Your task to perform on an android device: toggle priority inbox in the gmail app Image 0: 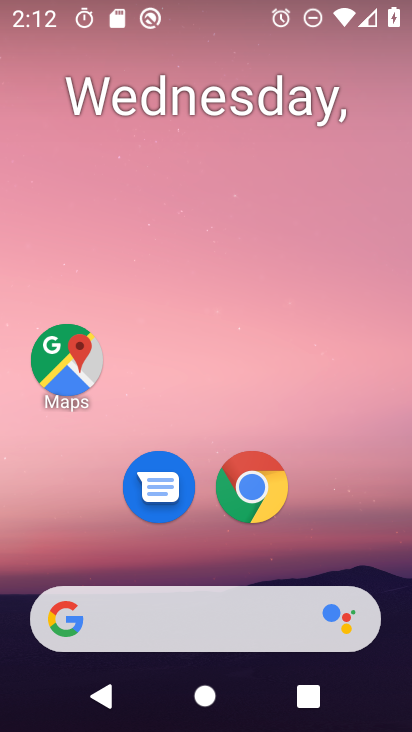
Step 0: drag from (182, 473) to (264, 53)
Your task to perform on an android device: toggle priority inbox in the gmail app Image 1: 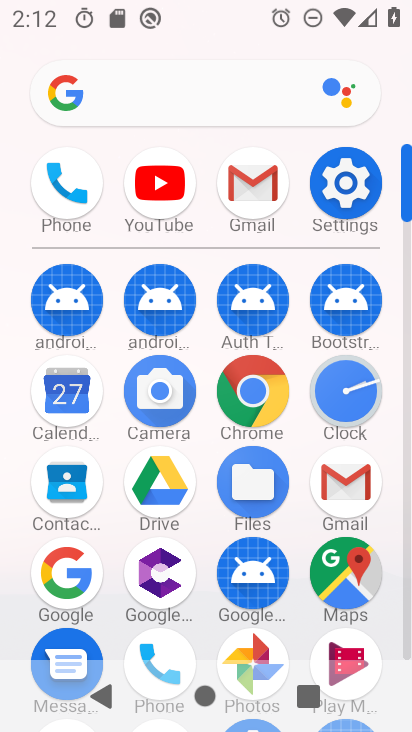
Step 1: click (268, 185)
Your task to perform on an android device: toggle priority inbox in the gmail app Image 2: 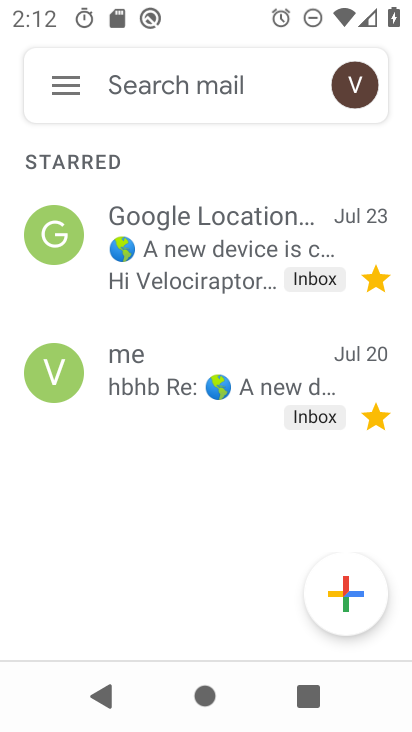
Step 2: click (65, 74)
Your task to perform on an android device: toggle priority inbox in the gmail app Image 3: 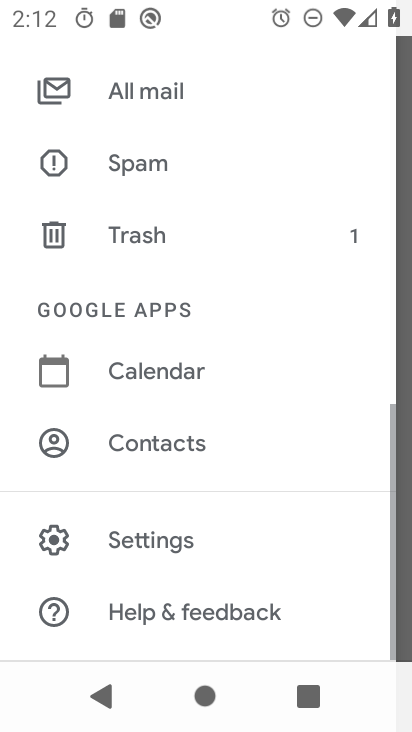
Step 3: click (133, 538)
Your task to perform on an android device: toggle priority inbox in the gmail app Image 4: 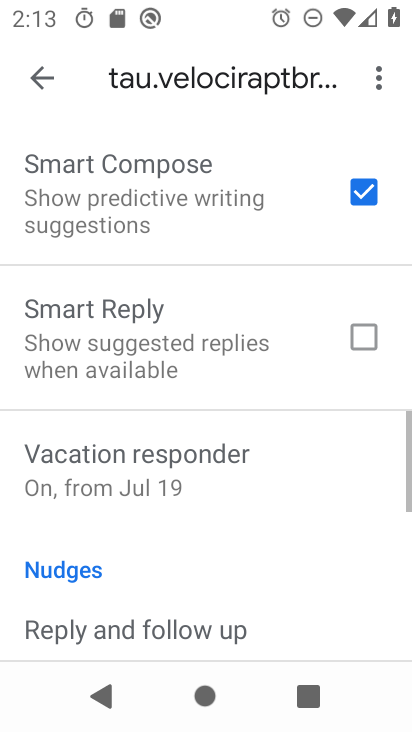
Step 4: drag from (167, 193) to (208, 730)
Your task to perform on an android device: toggle priority inbox in the gmail app Image 5: 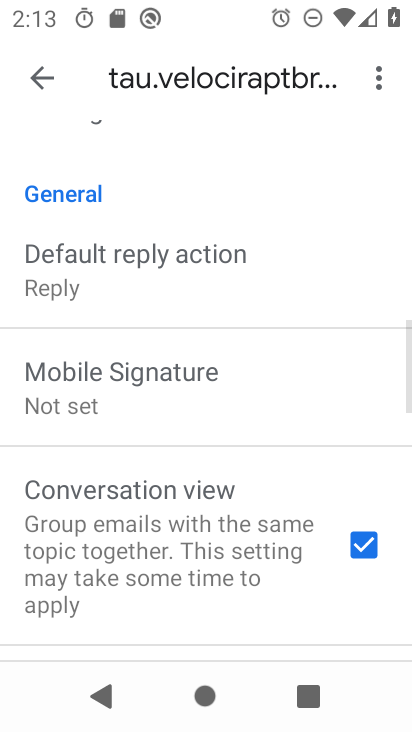
Step 5: drag from (212, 305) to (236, 719)
Your task to perform on an android device: toggle priority inbox in the gmail app Image 6: 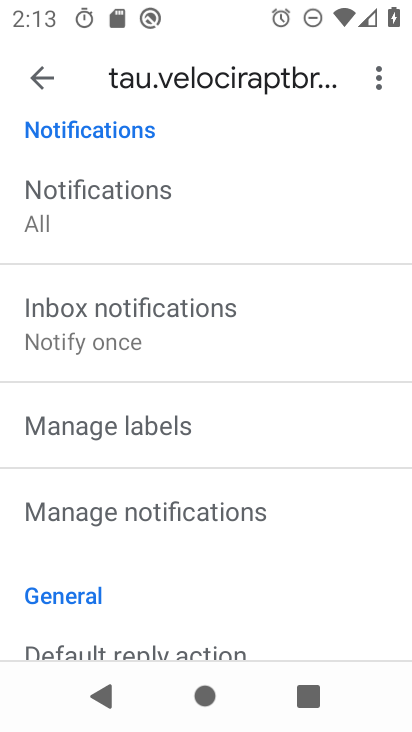
Step 6: drag from (178, 227) to (190, 693)
Your task to perform on an android device: toggle priority inbox in the gmail app Image 7: 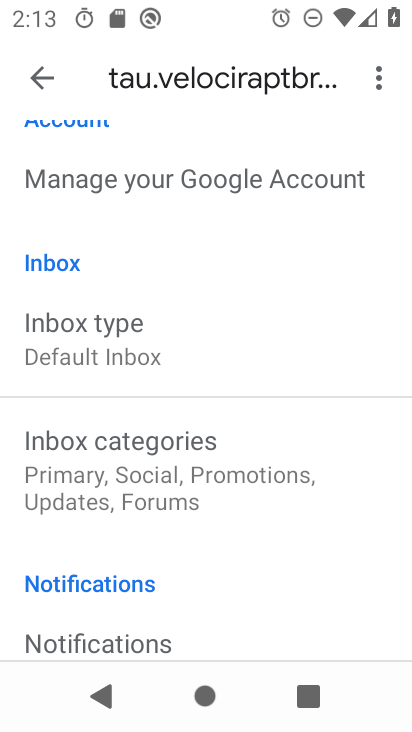
Step 7: drag from (148, 384) to (153, 661)
Your task to perform on an android device: toggle priority inbox in the gmail app Image 8: 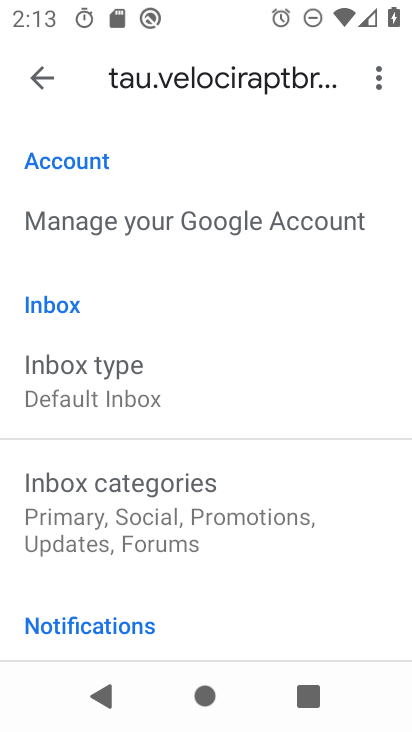
Step 8: click (160, 385)
Your task to perform on an android device: toggle priority inbox in the gmail app Image 9: 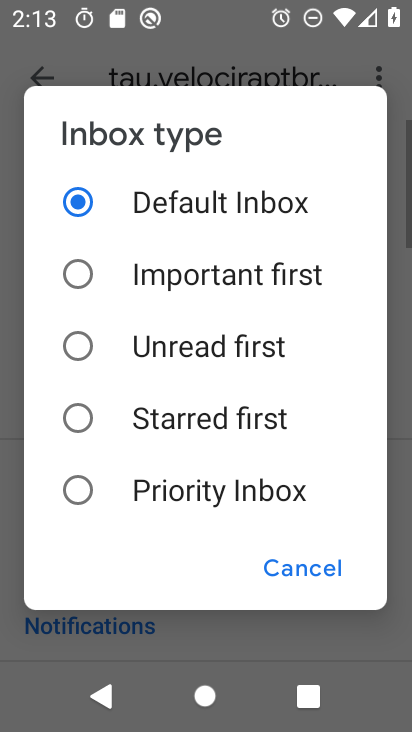
Step 9: click (91, 477)
Your task to perform on an android device: toggle priority inbox in the gmail app Image 10: 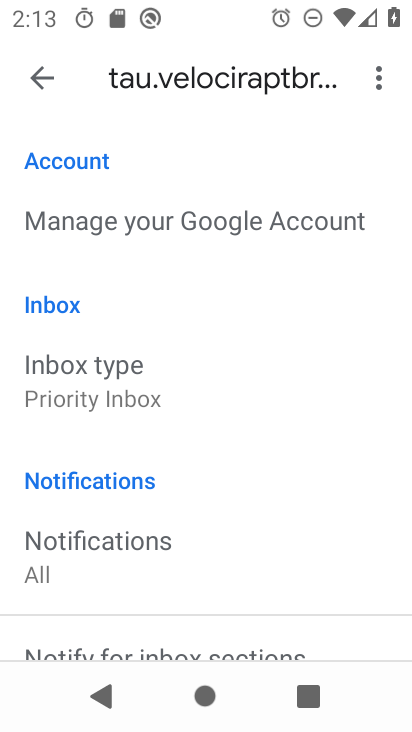
Step 10: task complete